Your task to perform on an android device: Open Google Maps Image 0: 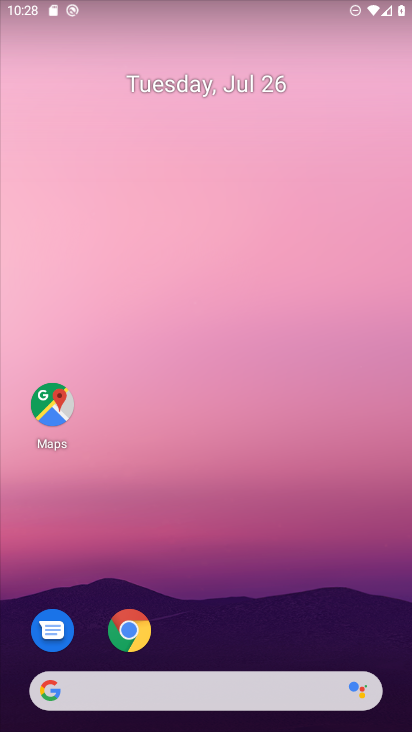
Step 0: click (54, 403)
Your task to perform on an android device: Open Google Maps Image 1: 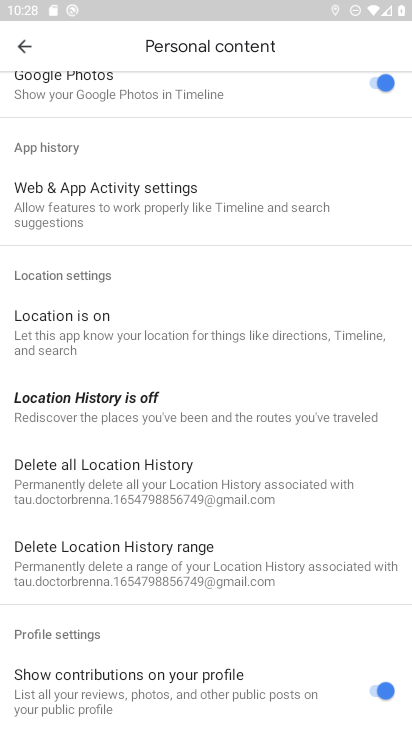
Step 1: task complete